Your task to perform on an android device: set the timer Image 0: 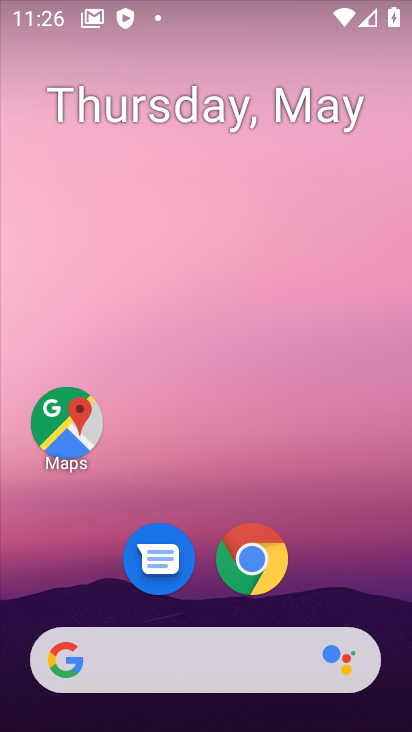
Step 0: drag from (200, 722) to (191, 116)
Your task to perform on an android device: set the timer Image 1: 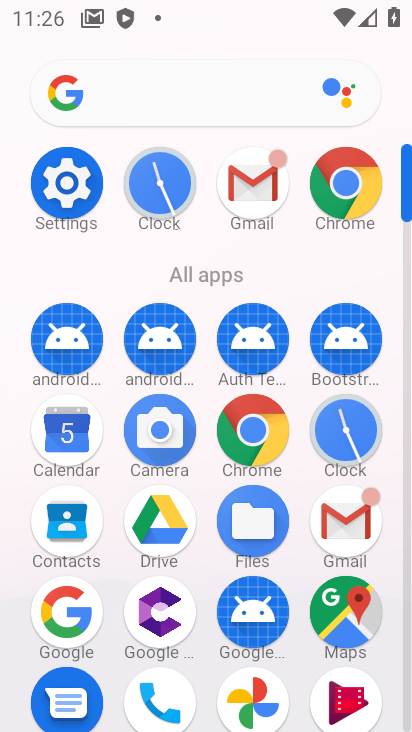
Step 1: click (346, 438)
Your task to perform on an android device: set the timer Image 2: 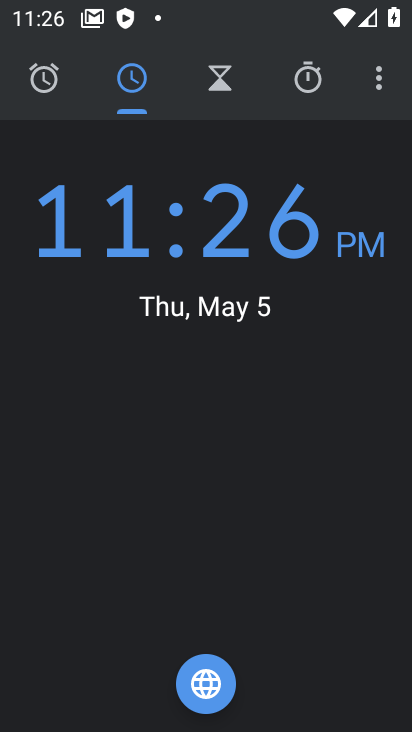
Step 2: click (224, 73)
Your task to perform on an android device: set the timer Image 3: 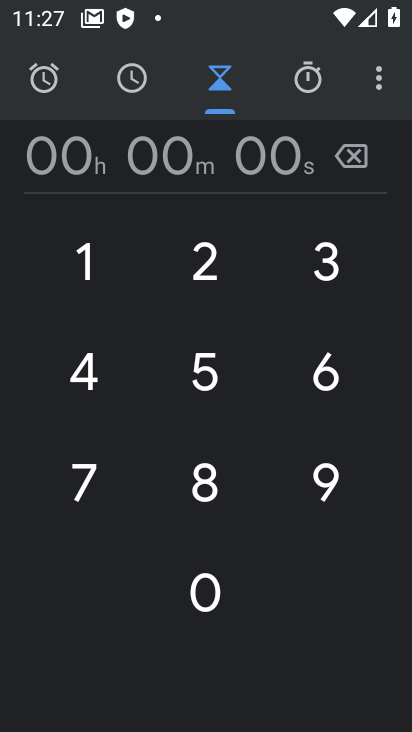
Step 3: click (206, 370)
Your task to perform on an android device: set the timer Image 4: 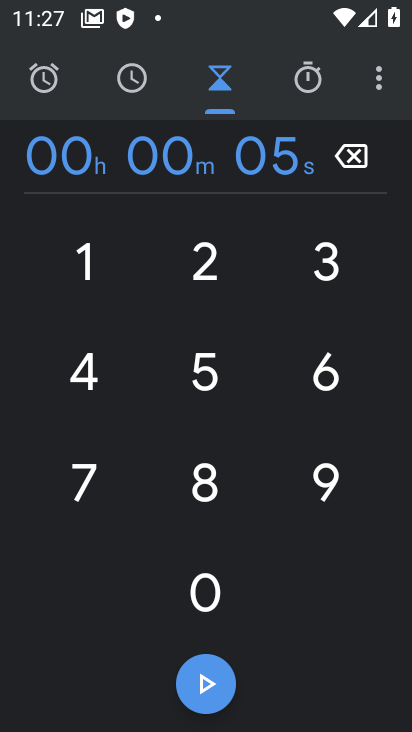
Step 4: click (196, 477)
Your task to perform on an android device: set the timer Image 5: 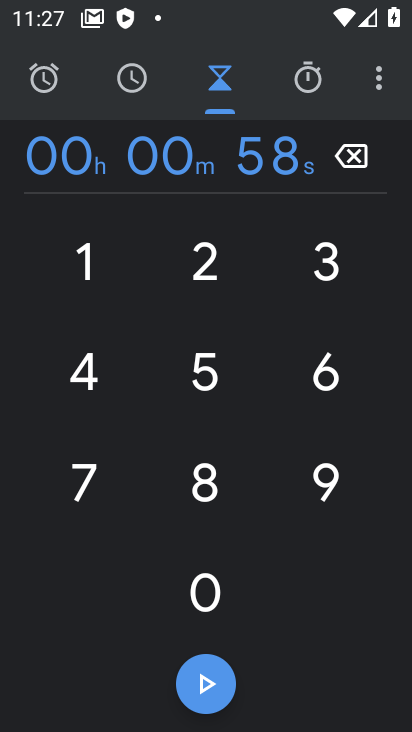
Step 5: click (95, 468)
Your task to perform on an android device: set the timer Image 6: 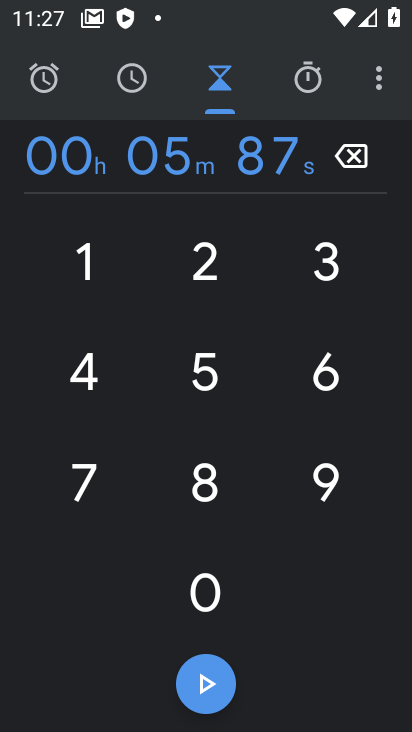
Step 6: click (99, 272)
Your task to perform on an android device: set the timer Image 7: 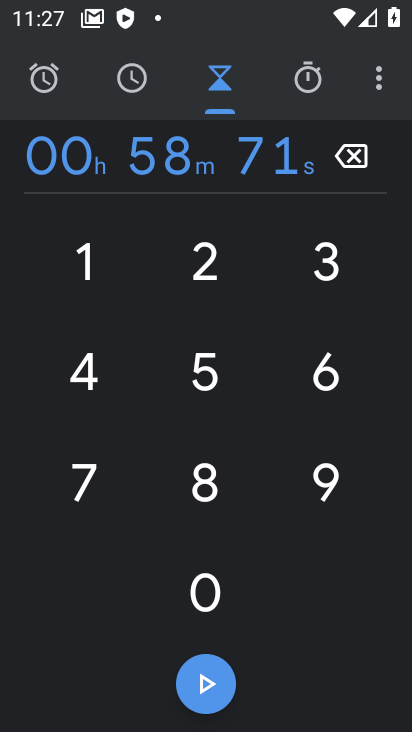
Step 7: click (86, 258)
Your task to perform on an android device: set the timer Image 8: 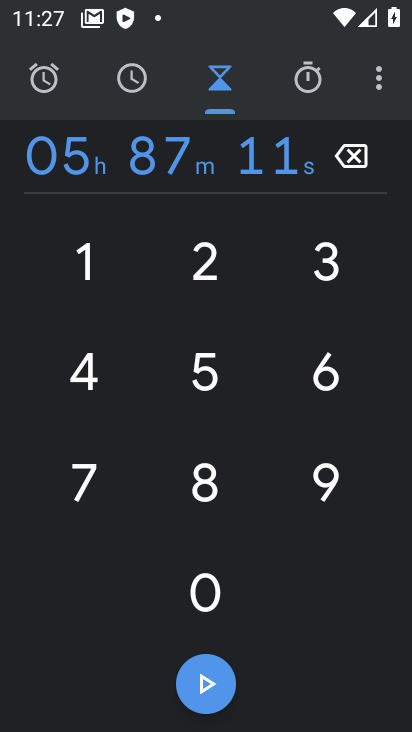
Step 8: click (203, 249)
Your task to perform on an android device: set the timer Image 9: 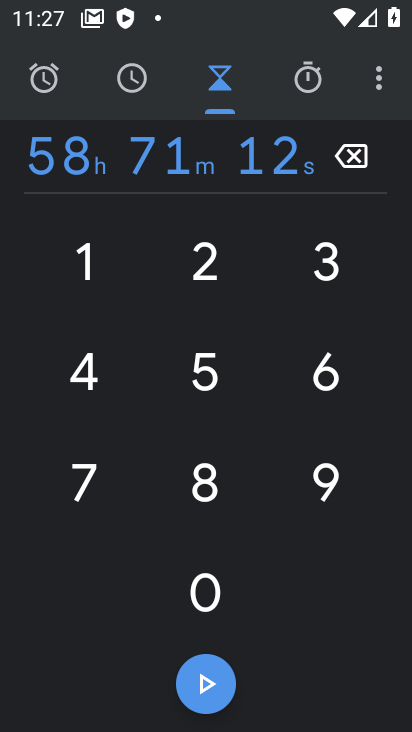
Step 9: click (216, 679)
Your task to perform on an android device: set the timer Image 10: 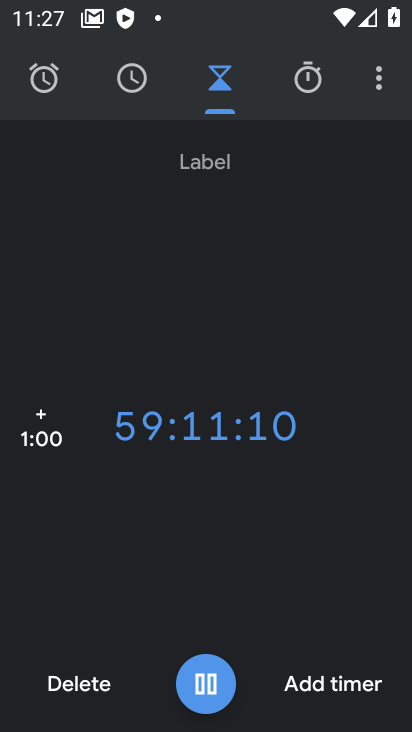
Step 10: task complete